Your task to perform on an android device: move an email to a new category in the gmail app Image 0: 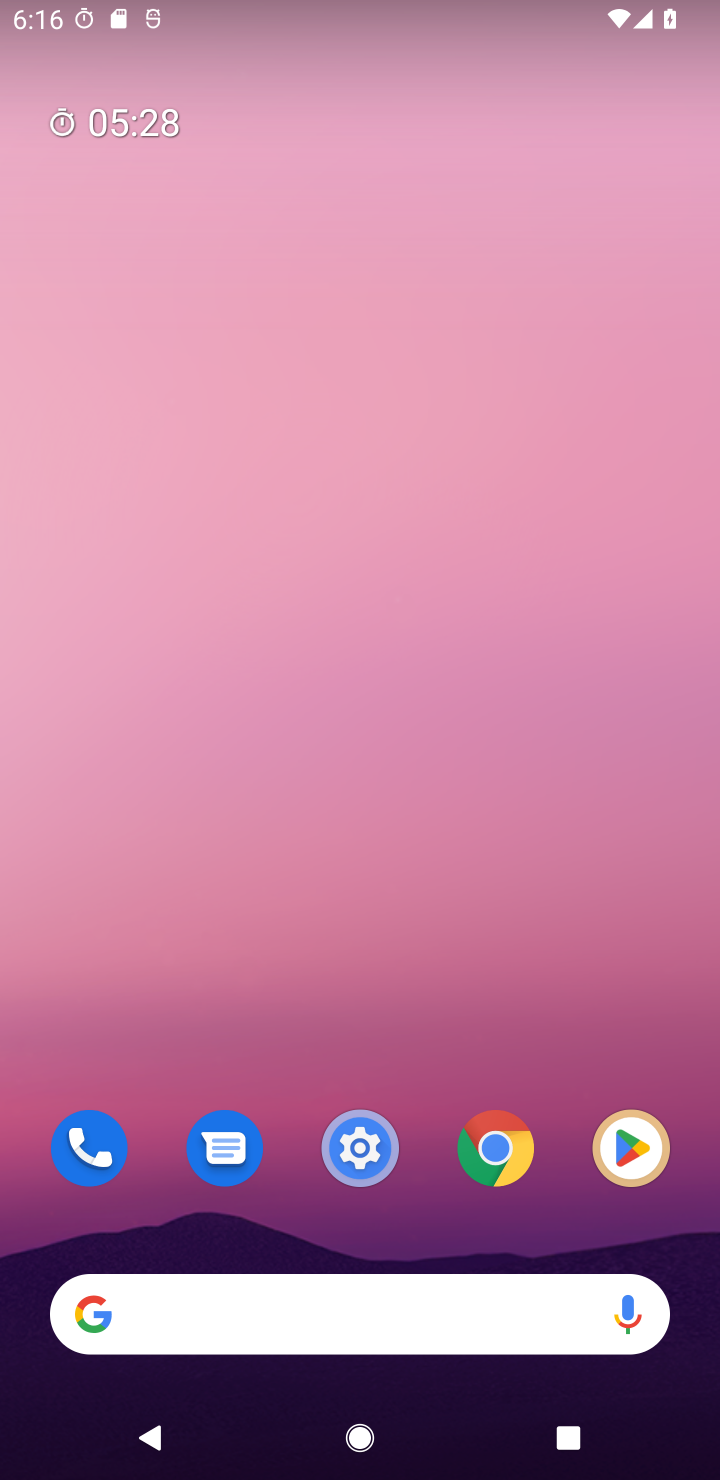
Step 0: drag from (354, 1175) to (468, 45)
Your task to perform on an android device: move an email to a new category in the gmail app Image 1: 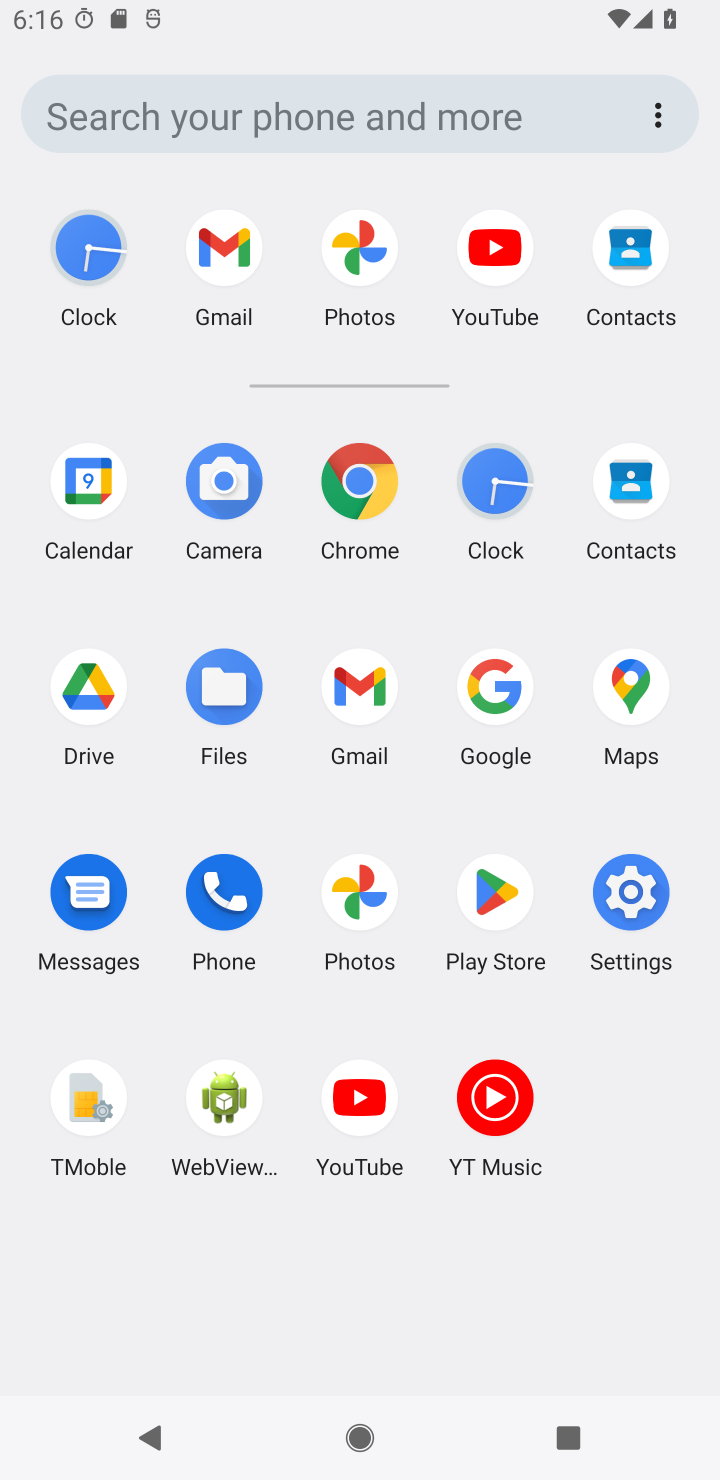
Step 1: click (361, 721)
Your task to perform on an android device: move an email to a new category in the gmail app Image 2: 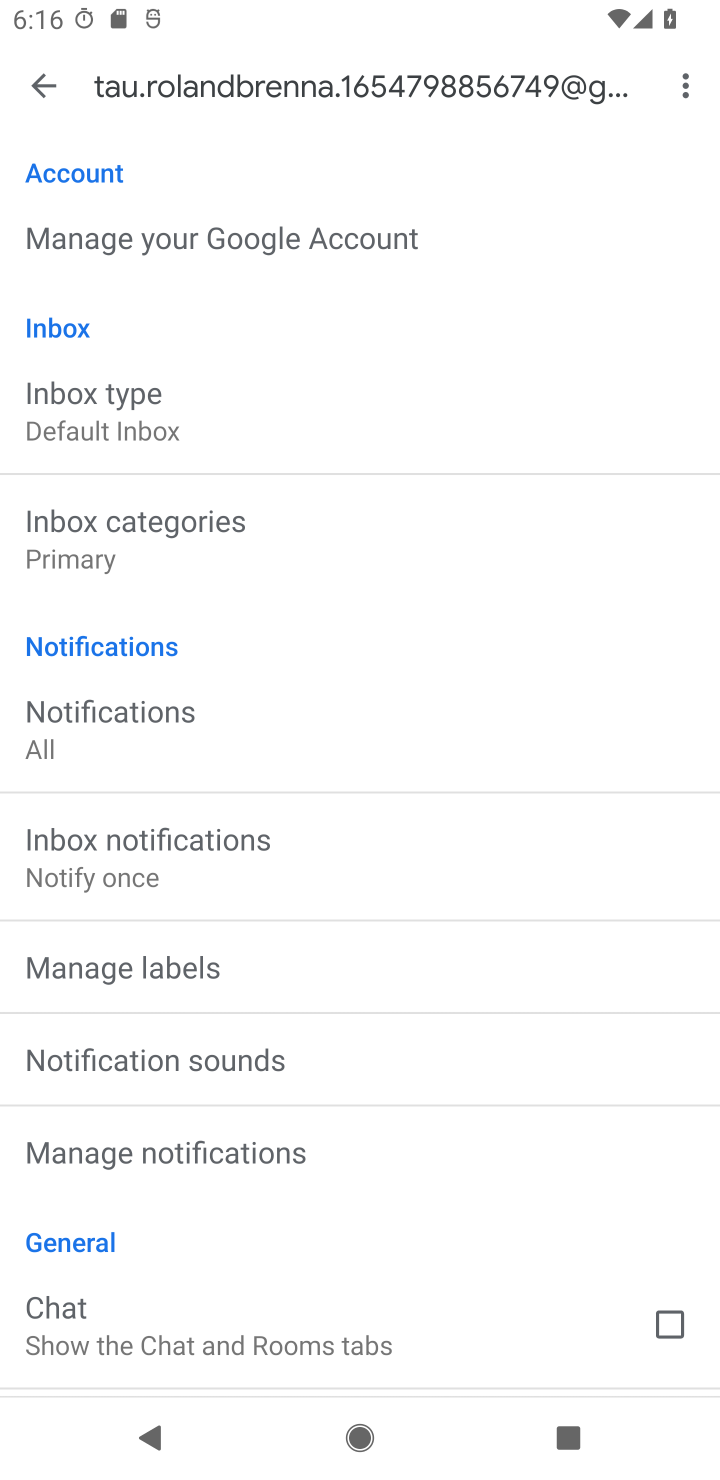
Step 2: click (38, 84)
Your task to perform on an android device: move an email to a new category in the gmail app Image 3: 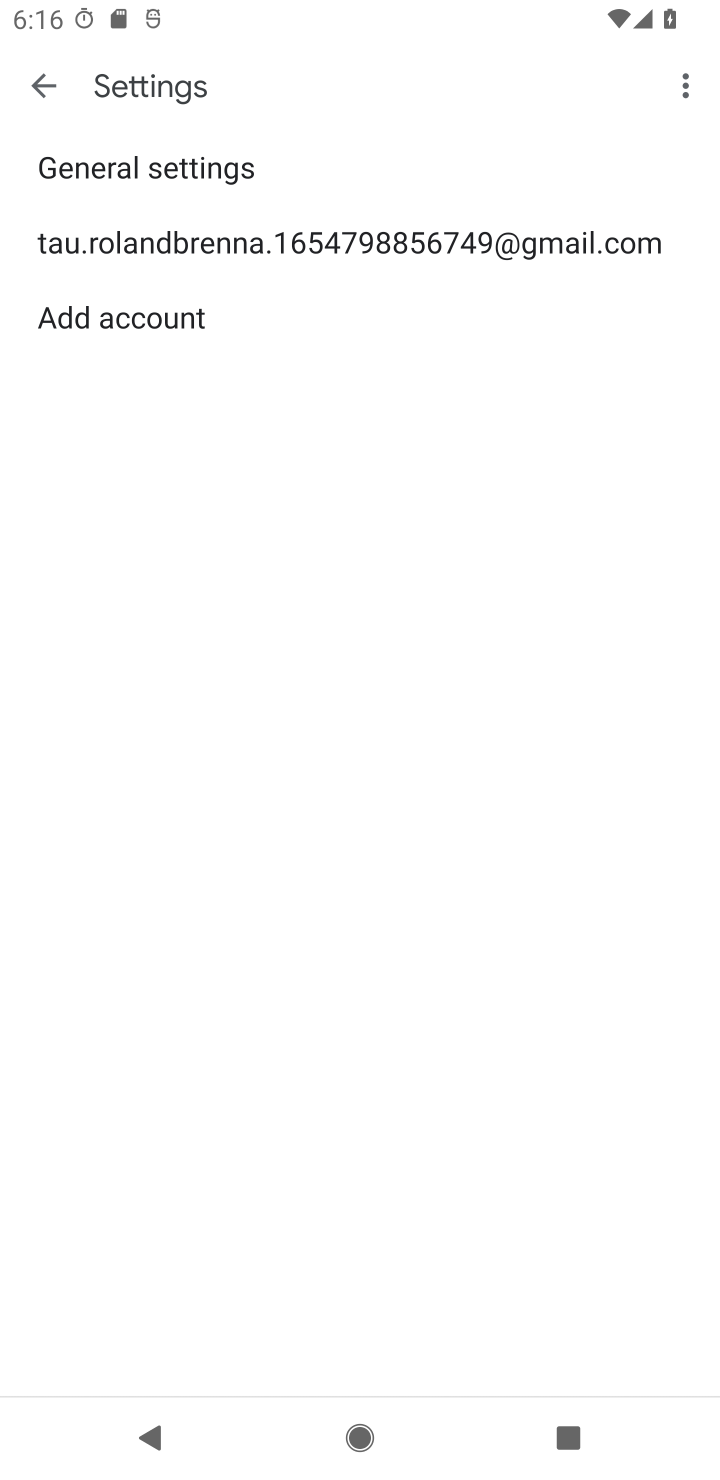
Step 3: click (38, 84)
Your task to perform on an android device: move an email to a new category in the gmail app Image 4: 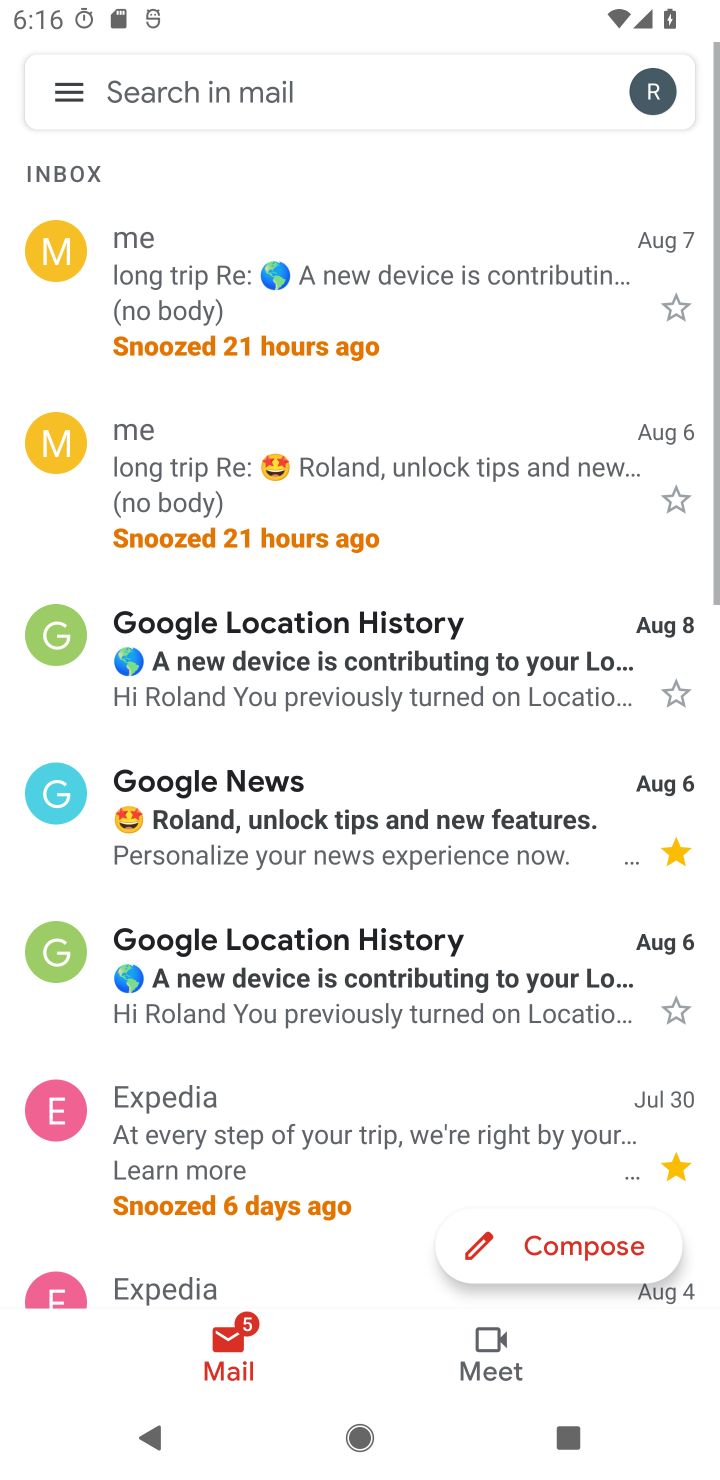
Step 4: click (48, 650)
Your task to perform on an android device: move an email to a new category in the gmail app Image 5: 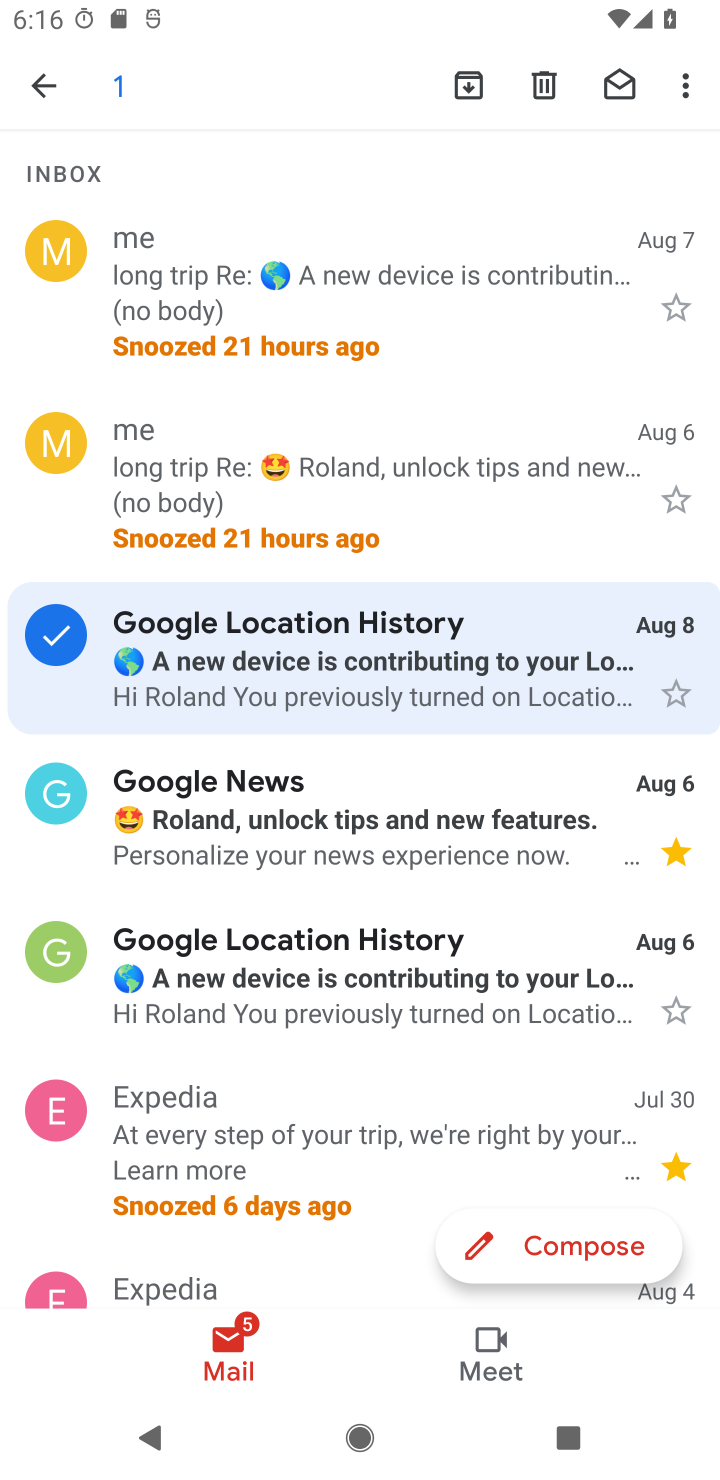
Step 5: click (676, 85)
Your task to perform on an android device: move an email to a new category in the gmail app Image 6: 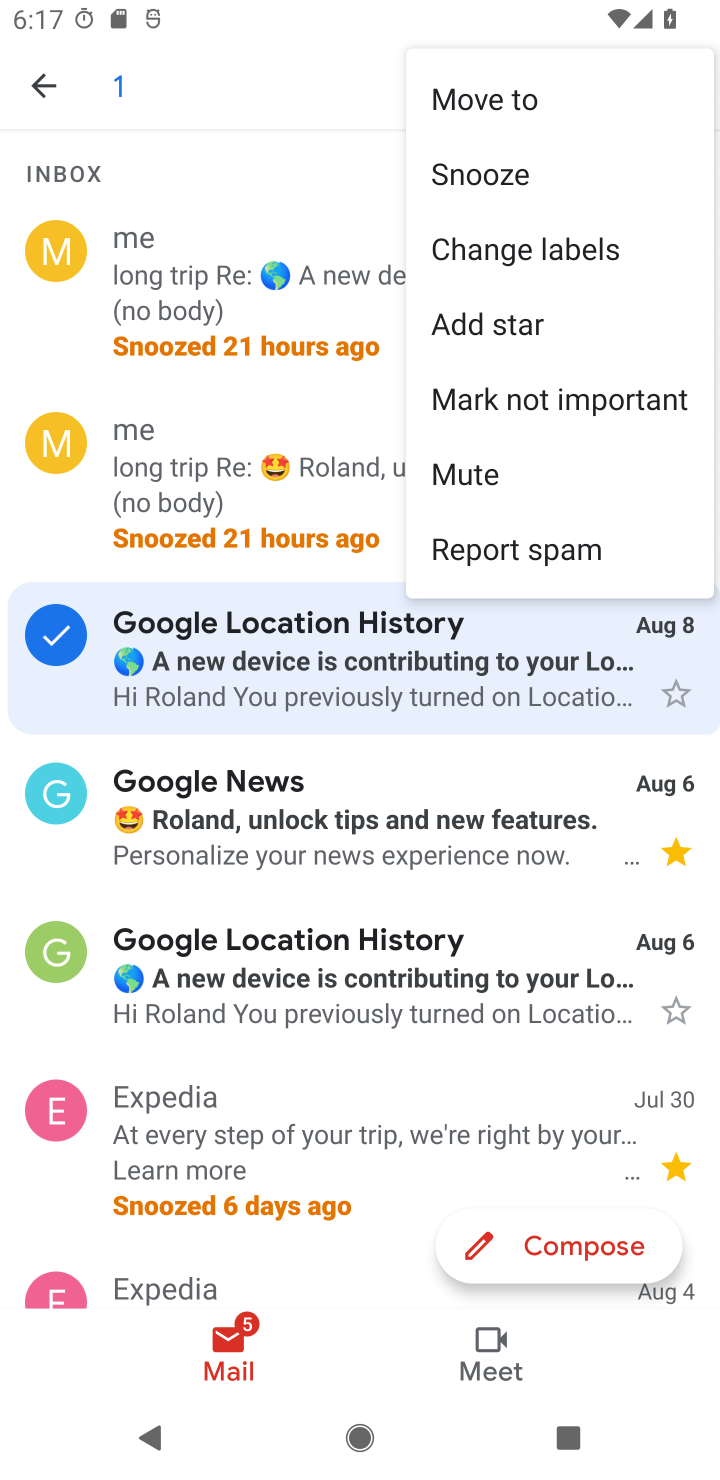
Step 6: click (569, 102)
Your task to perform on an android device: move an email to a new category in the gmail app Image 7: 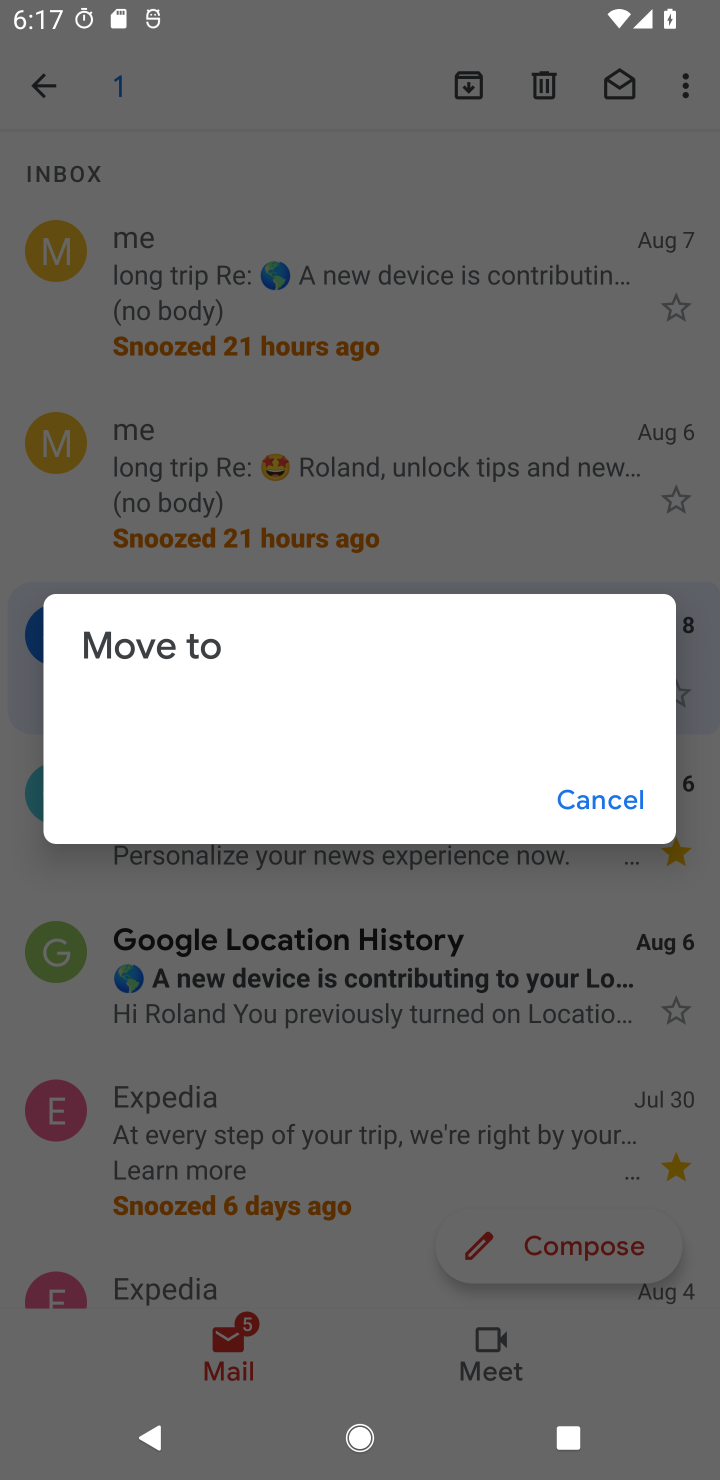
Step 7: click (580, 800)
Your task to perform on an android device: move an email to a new category in the gmail app Image 8: 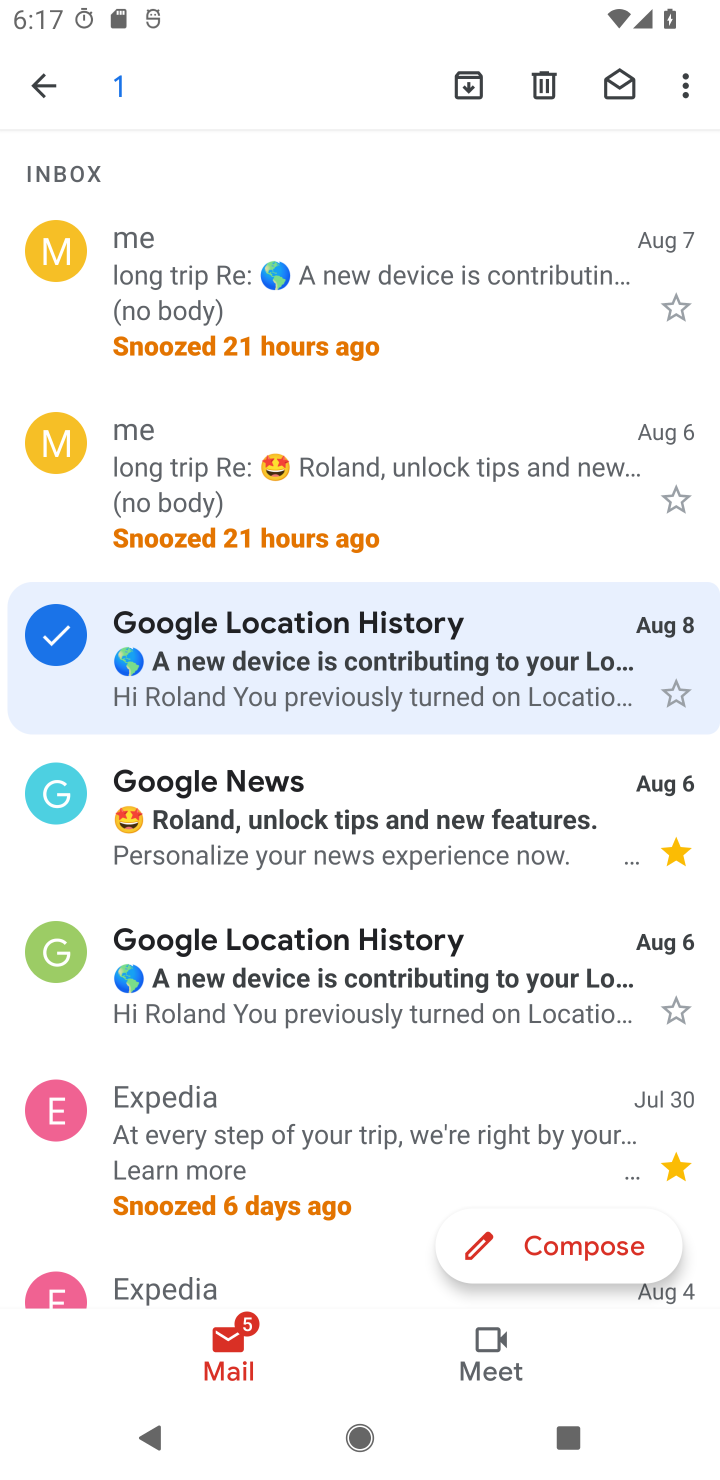
Step 8: click (690, 97)
Your task to perform on an android device: move an email to a new category in the gmail app Image 9: 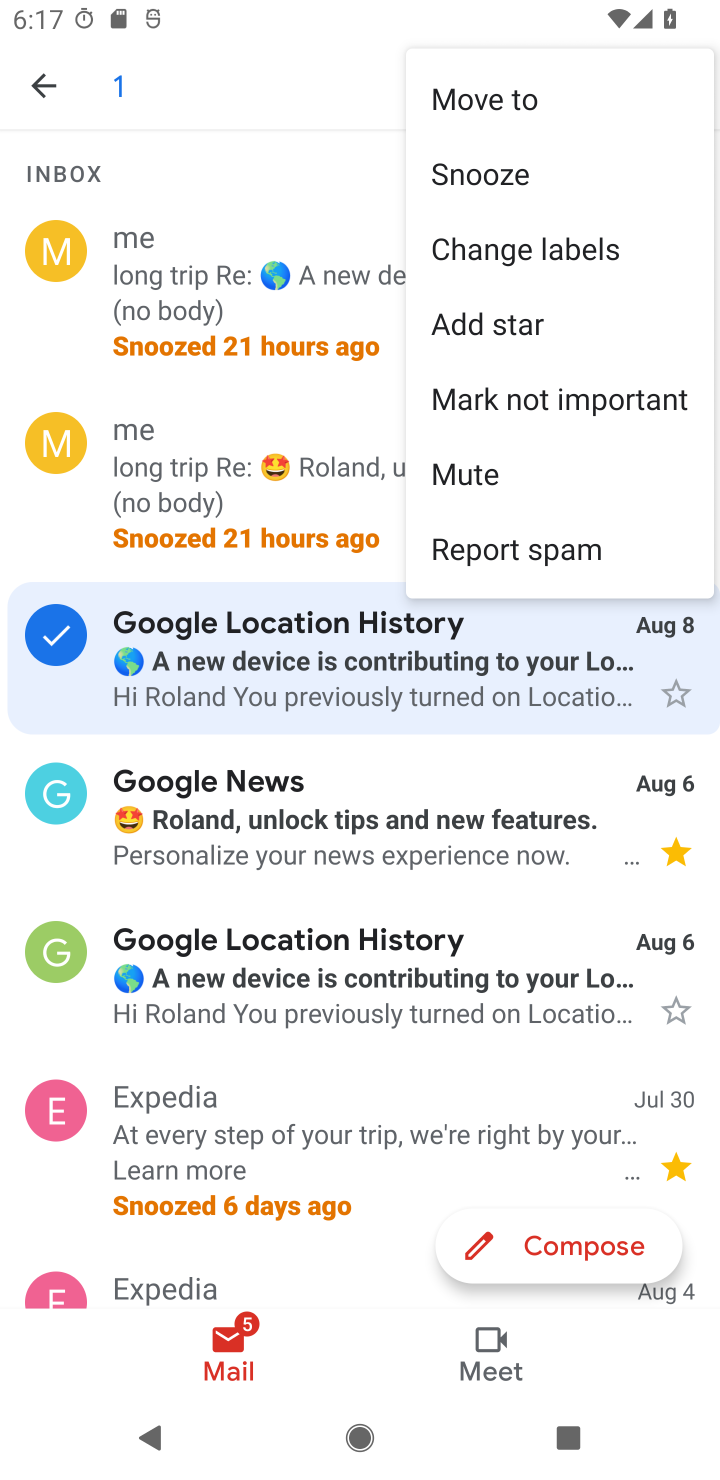
Step 9: click (609, 241)
Your task to perform on an android device: move an email to a new category in the gmail app Image 10: 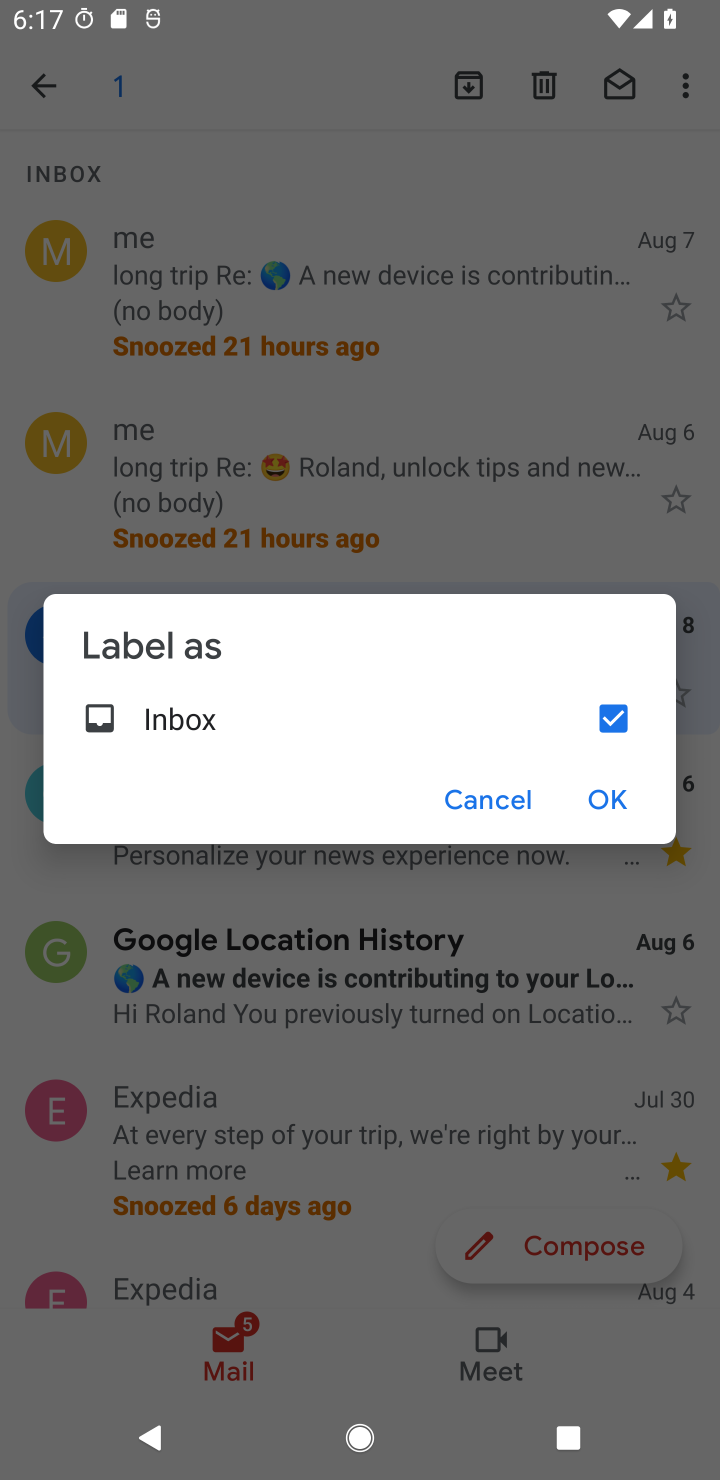
Step 10: click (605, 723)
Your task to perform on an android device: move an email to a new category in the gmail app Image 11: 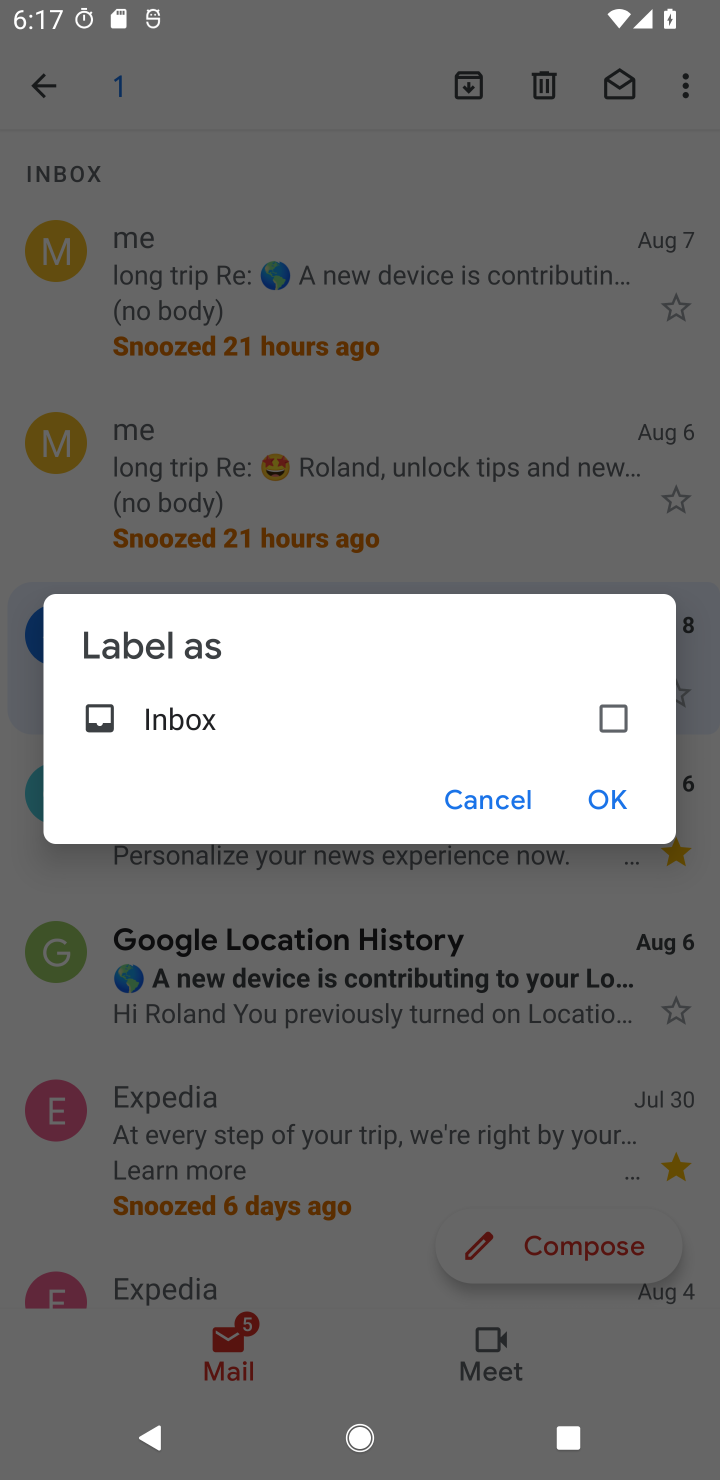
Step 11: click (617, 789)
Your task to perform on an android device: move an email to a new category in the gmail app Image 12: 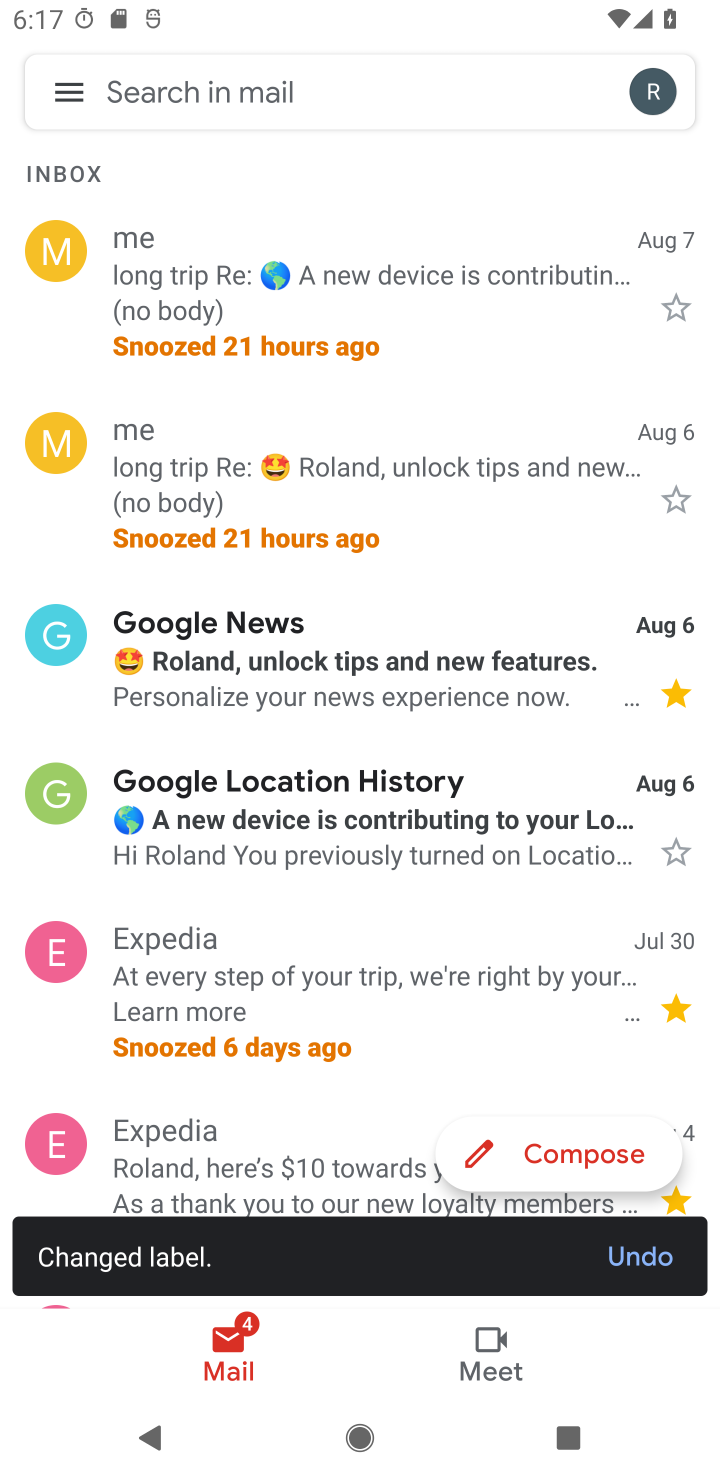
Step 12: task complete